Your task to perform on an android device: make emails show in primary in the gmail app Image 0: 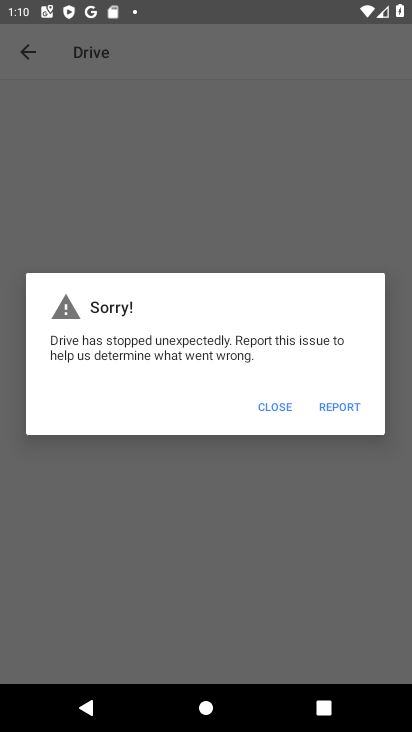
Step 0: press home button
Your task to perform on an android device: make emails show in primary in the gmail app Image 1: 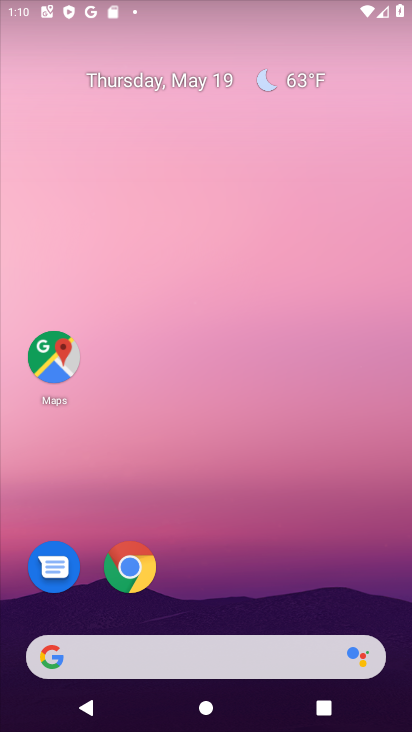
Step 1: drag from (310, 559) to (250, 84)
Your task to perform on an android device: make emails show in primary in the gmail app Image 2: 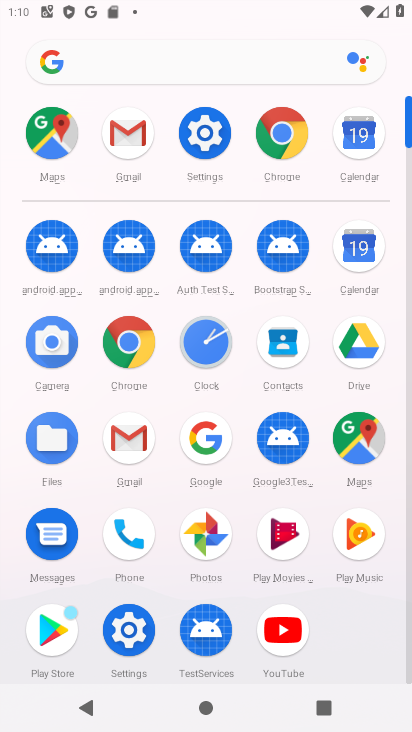
Step 2: click (125, 137)
Your task to perform on an android device: make emails show in primary in the gmail app Image 3: 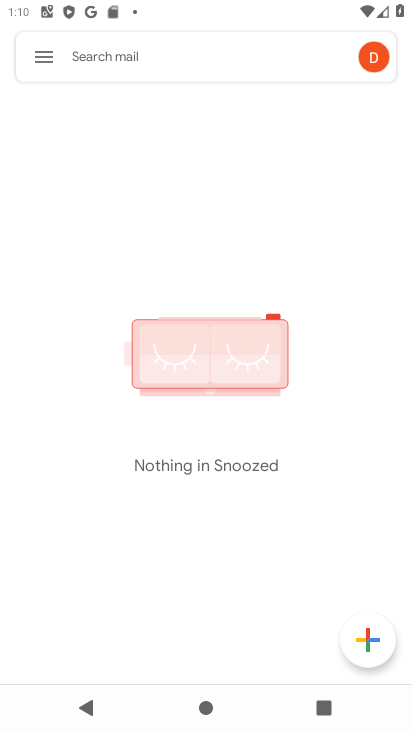
Step 3: click (49, 60)
Your task to perform on an android device: make emails show in primary in the gmail app Image 4: 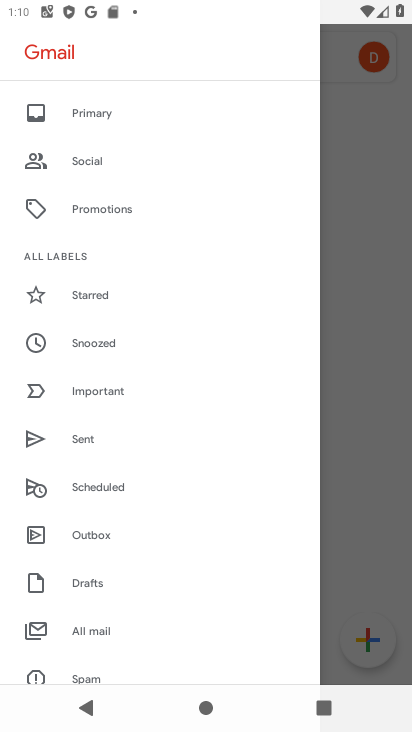
Step 4: drag from (146, 653) to (105, 198)
Your task to perform on an android device: make emails show in primary in the gmail app Image 5: 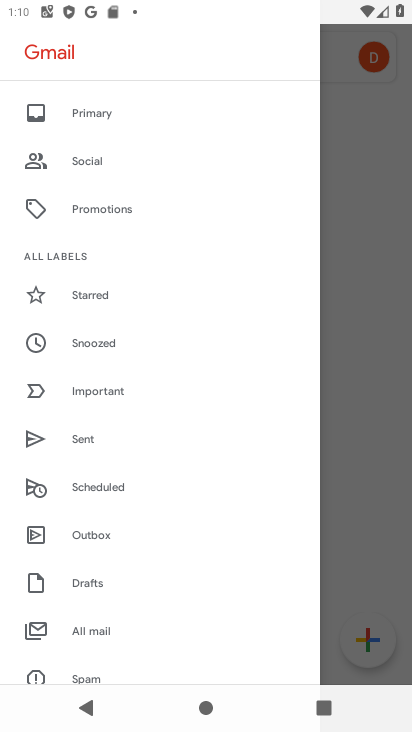
Step 5: drag from (74, 571) to (156, 155)
Your task to perform on an android device: make emails show in primary in the gmail app Image 6: 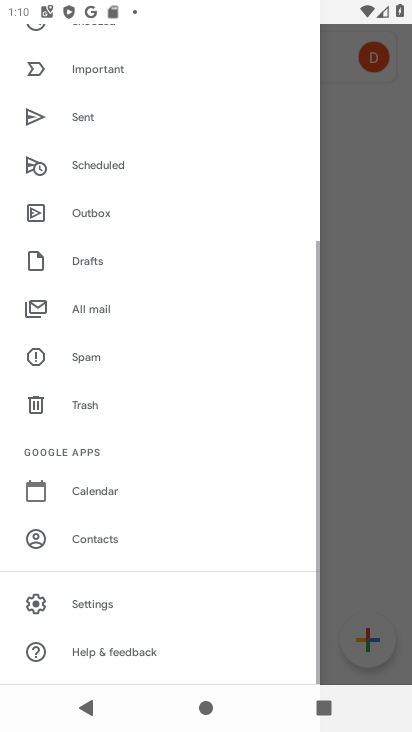
Step 6: click (102, 604)
Your task to perform on an android device: make emails show in primary in the gmail app Image 7: 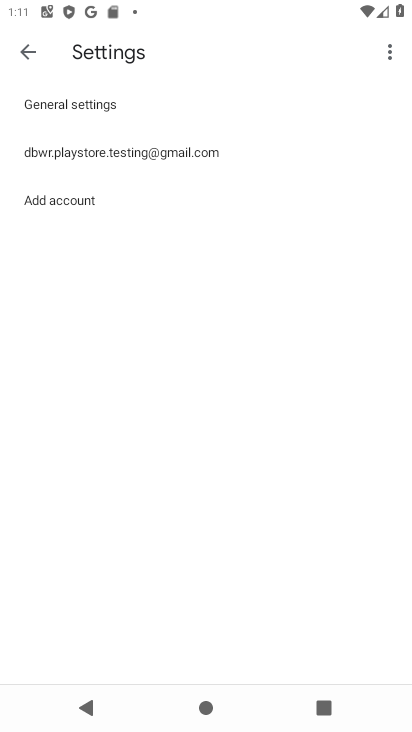
Step 7: click (86, 149)
Your task to perform on an android device: make emails show in primary in the gmail app Image 8: 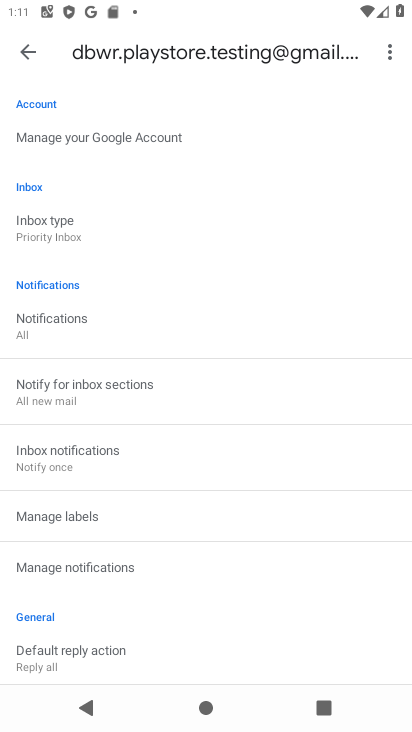
Step 8: click (44, 229)
Your task to perform on an android device: make emails show in primary in the gmail app Image 9: 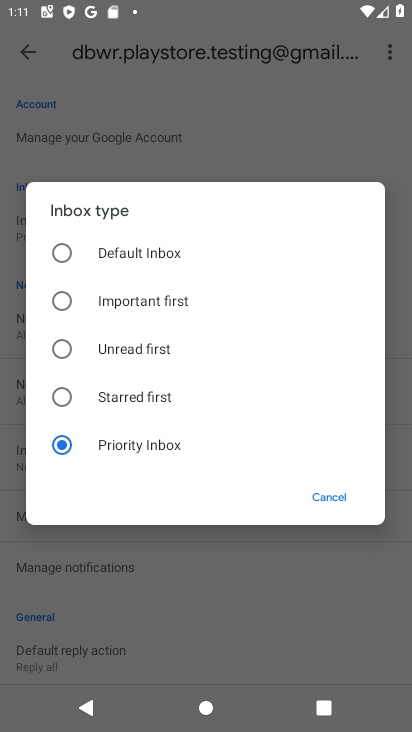
Step 9: click (60, 249)
Your task to perform on an android device: make emails show in primary in the gmail app Image 10: 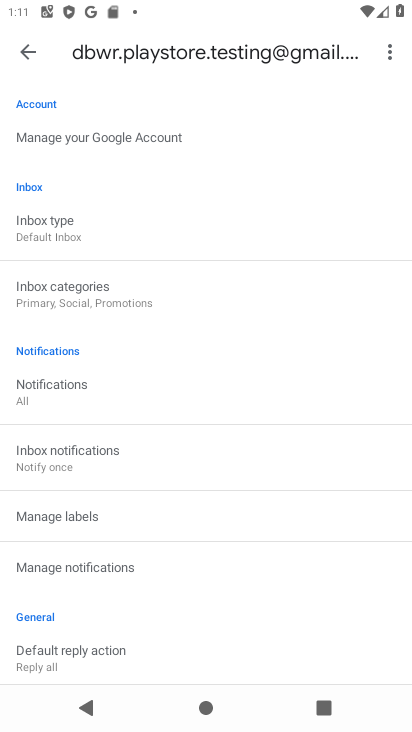
Step 10: task complete